Your task to perform on an android device: Toggle the flashlight Image 0: 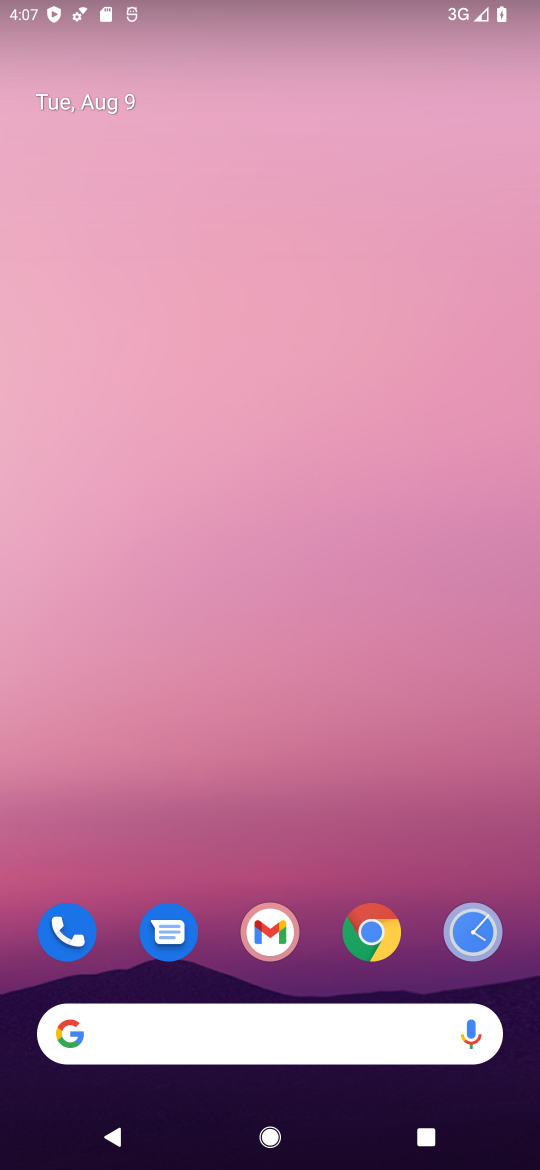
Step 0: drag from (295, 261) to (311, 728)
Your task to perform on an android device: Toggle the flashlight Image 1: 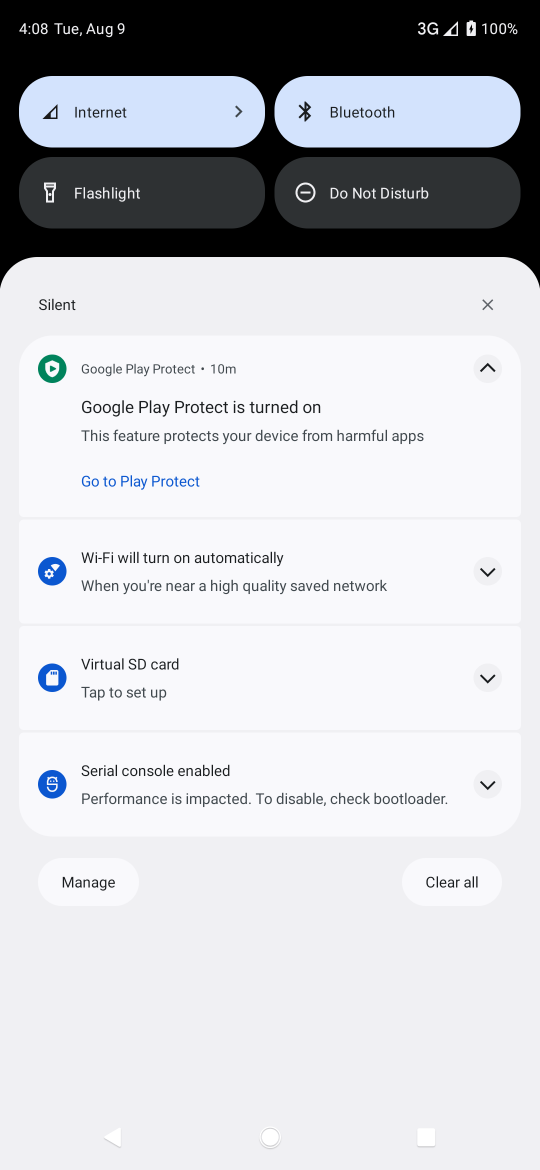
Step 1: task complete